Your task to perform on an android device: turn vacation reply on in the gmail app Image 0: 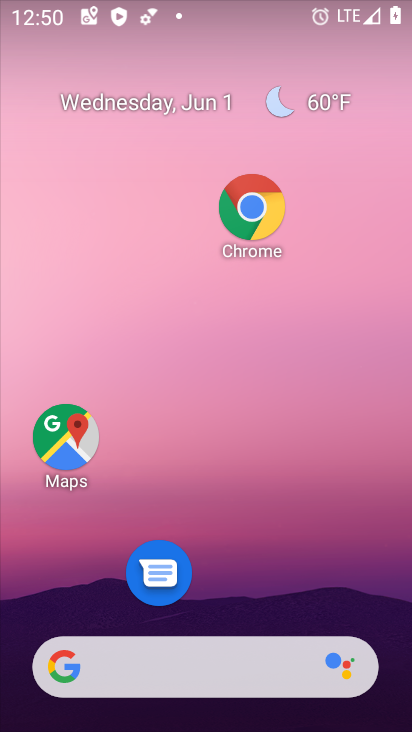
Step 0: drag from (223, 567) to (182, 146)
Your task to perform on an android device: turn vacation reply on in the gmail app Image 1: 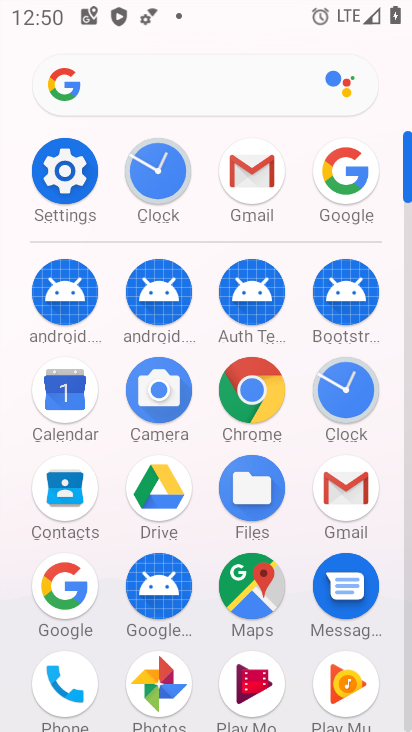
Step 1: click (248, 178)
Your task to perform on an android device: turn vacation reply on in the gmail app Image 2: 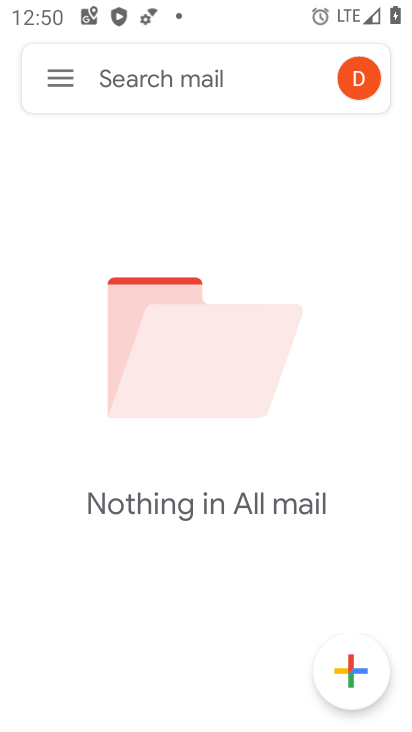
Step 2: click (41, 86)
Your task to perform on an android device: turn vacation reply on in the gmail app Image 3: 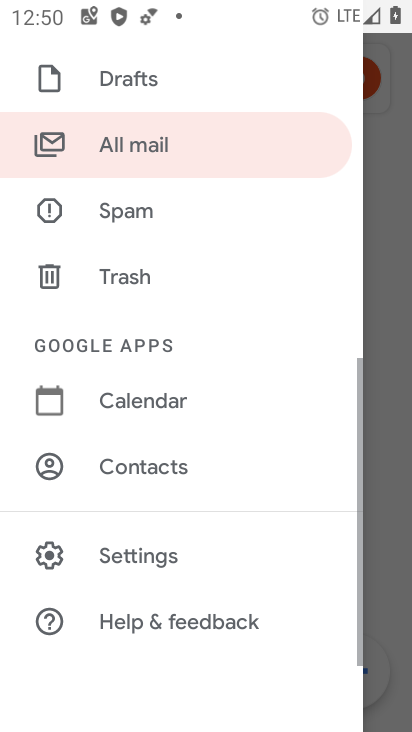
Step 3: click (157, 567)
Your task to perform on an android device: turn vacation reply on in the gmail app Image 4: 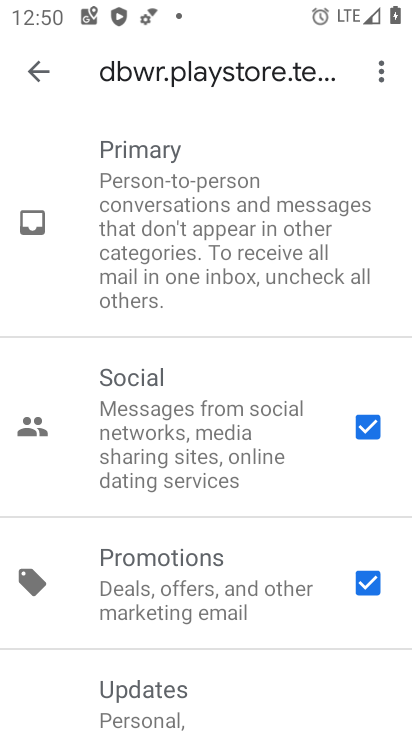
Step 4: drag from (195, 572) to (207, 247)
Your task to perform on an android device: turn vacation reply on in the gmail app Image 5: 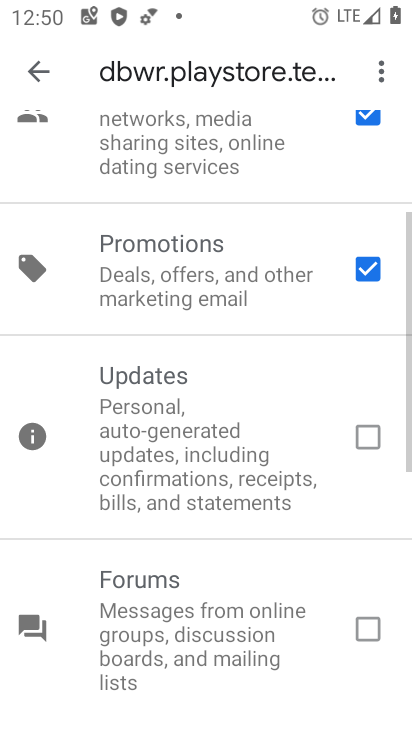
Step 5: drag from (174, 707) to (215, 409)
Your task to perform on an android device: turn vacation reply on in the gmail app Image 6: 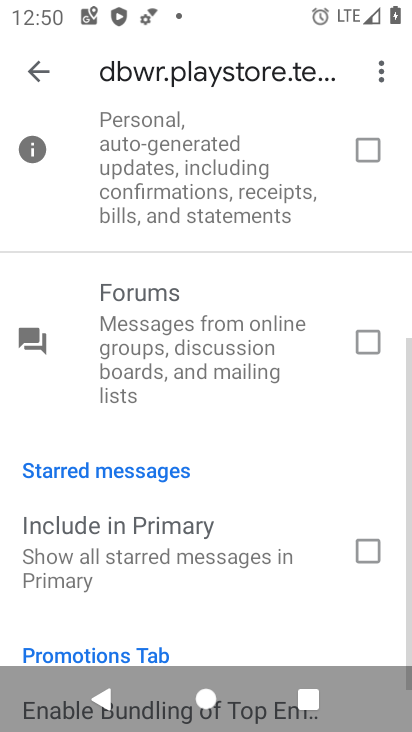
Step 6: drag from (198, 579) to (229, 388)
Your task to perform on an android device: turn vacation reply on in the gmail app Image 7: 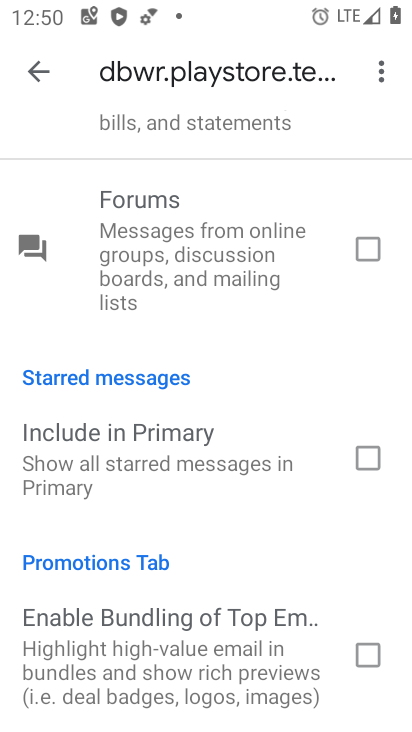
Step 7: drag from (209, 607) to (229, 364)
Your task to perform on an android device: turn vacation reply on in the gmail app Image 8: 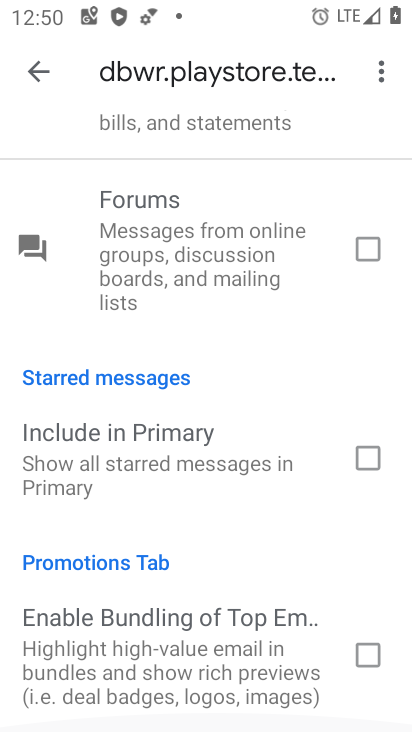
Step 8: drag from (205, 578) to (219, 286)
Your task to perform on an android device: turn vacation reply on in the gmail app Image 9: 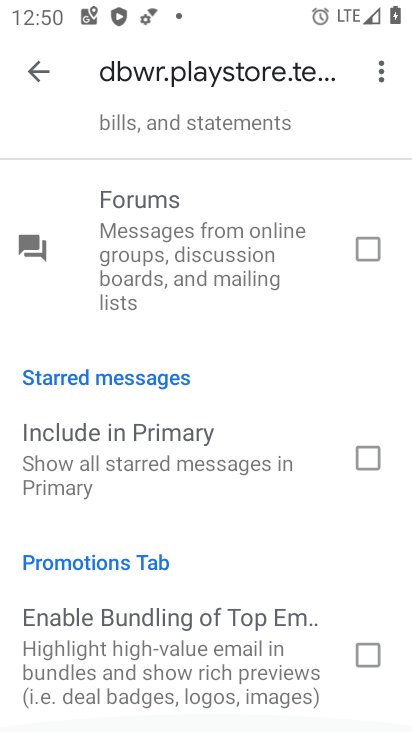
Step 9: drag from (189, 255) to (185, 503)
Your task to perform on an android device: turn vacation reply on in the gmail app Image 10: 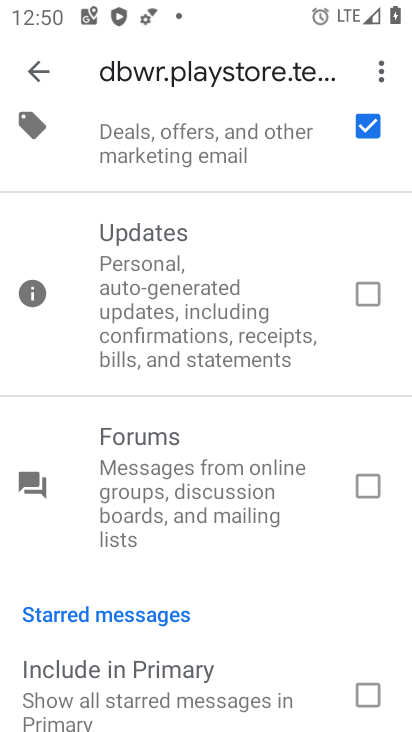
Step 10: drag from (196, 287) to (198, 594)
Your task to perform on an android device: turn vacation reply on in the gmail app Image 11: 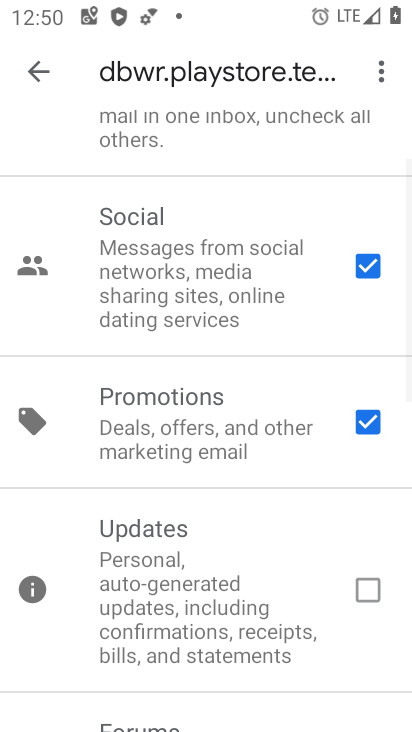
Step 11: drag from (192, 270) to (190, 570)
Your task to perform on an android device: turn vacation reply on in the gmail app Image 12: 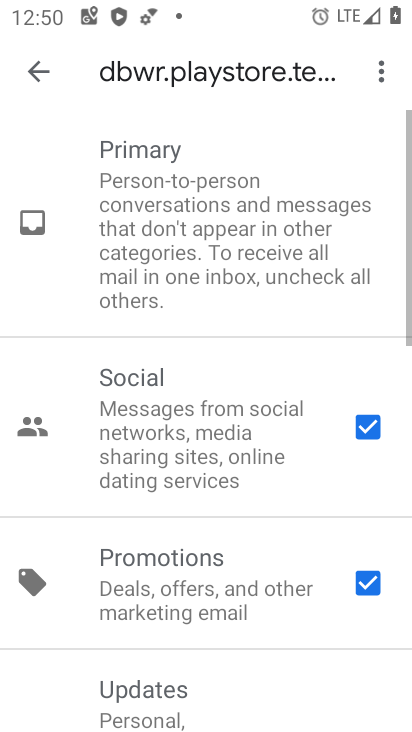
Step 12: drag from (193, 215) to (181, 599)
Your task to perform on an android device: turn vacation reply on in the gmail app Image 13: 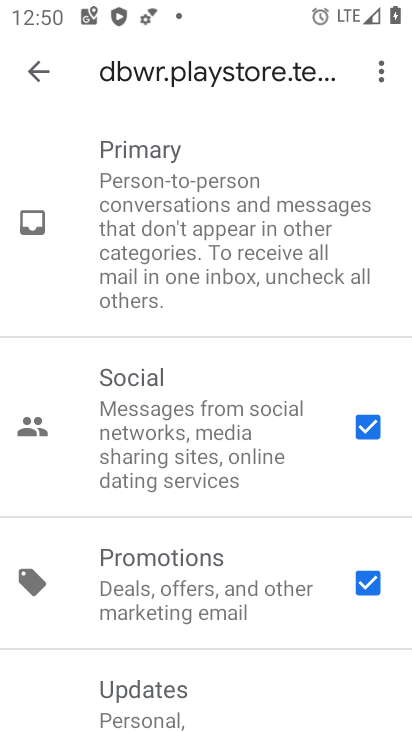
Step 13: click (38, 74)
Your task to perform on an android device: turn vacation reply on in the gmail app Image 14: 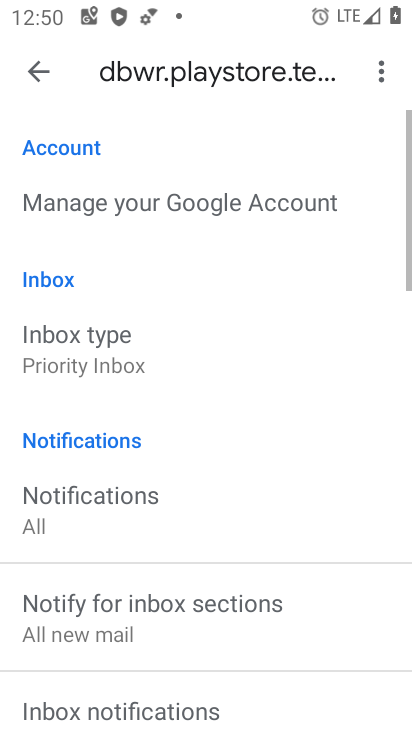
Step 14: drag from (189, 593) to (270, 216)
Your task to perform on an android device: turn vacation reply on in the gmail app Image 15: 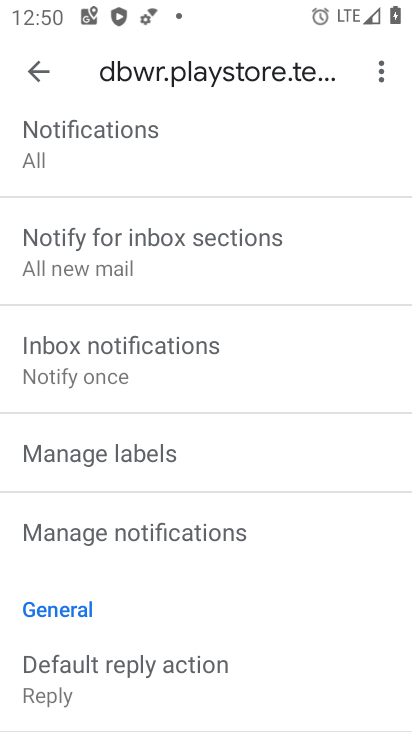
Step 15: drag from (209, 596) to (227, 358)
Your task to perform on an android device: turn vacation reply on in the gmail app Image 16: 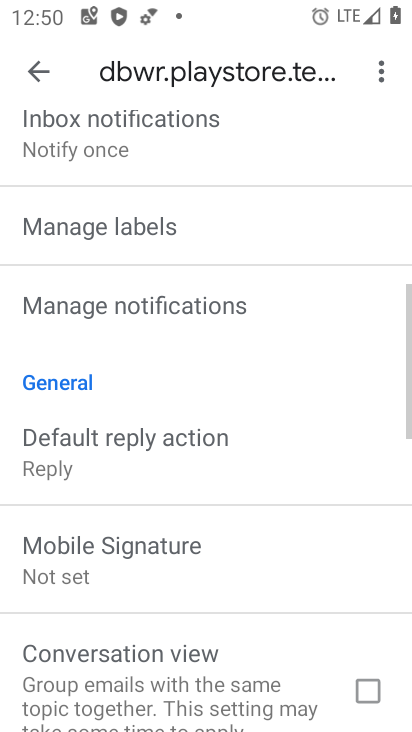
Step 16: drag from (188, 621) to (217, 294)
Your task to perform on an android device: turn vacation reply on in the gmail app Image 17: 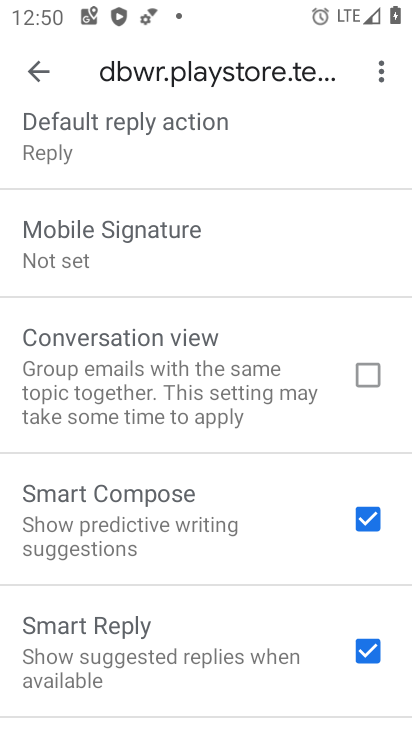
Step 17: drag from (167, 622) to (232, 215)
Your task to perform on an android device: turn vacation reply on in the gmail app Image 18: 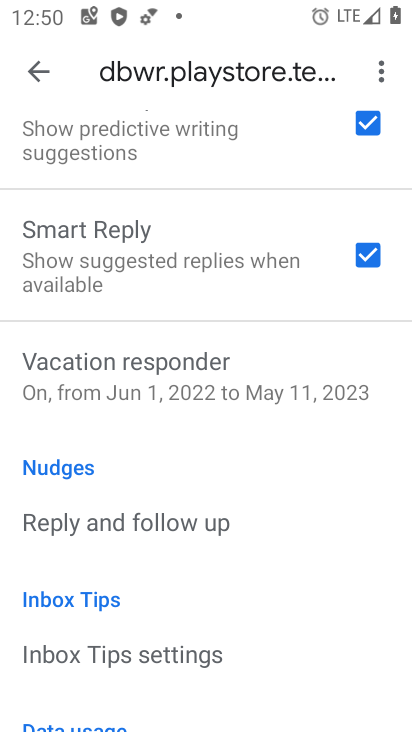
Step 18: click (205, 399)
Your task to perform on an android device: turn vacation reply on in the gmail app Image 19: 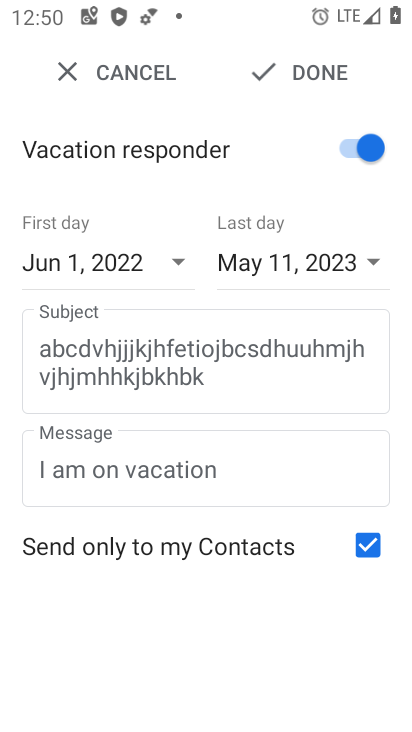
Step 19: task complete